Your task to perform on an android device: change notification settings in the gmail app Image 0: 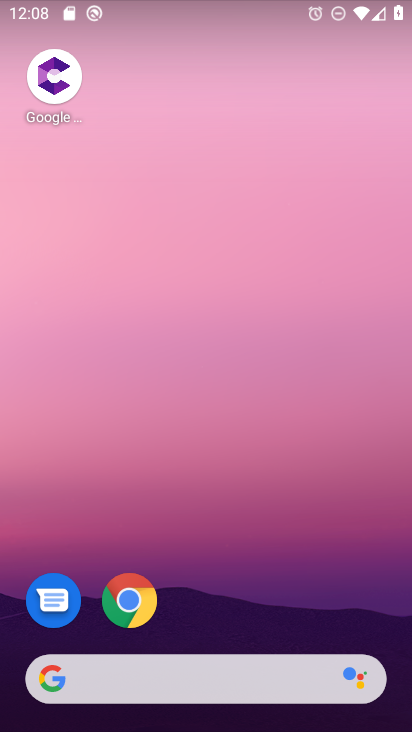
Step 0: drag from (248, 611) to (305, 1)
Your task to perform on an android device: change notification settings in the gmail app Image 1: 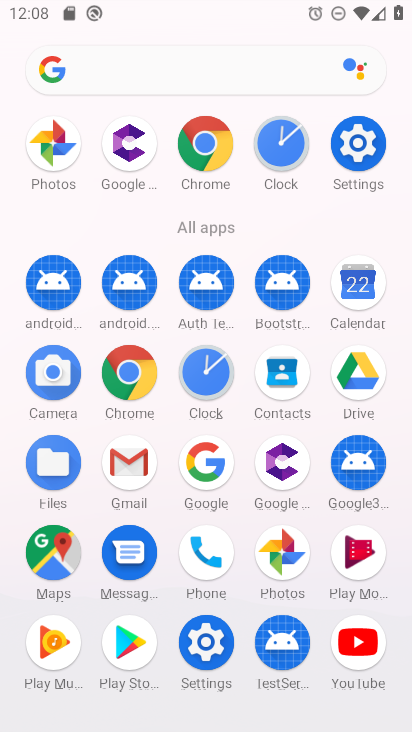
Step 1: click (126, 461)
Your task to perform on an android device: change notification settings in the gmail app Image 2: 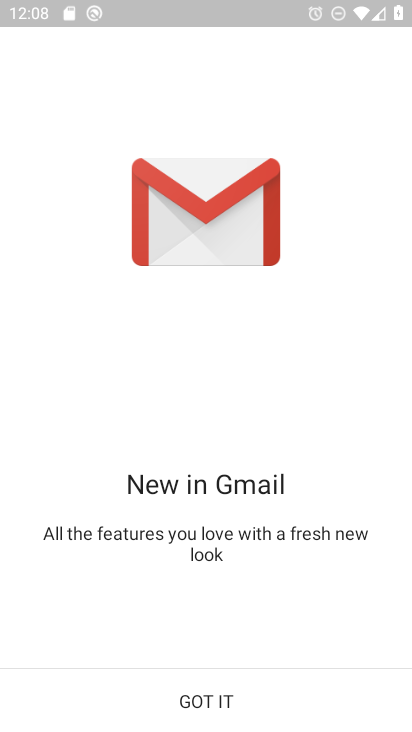
Step 2: click (215, 704)
Your task to perform on an android device: change notification settings in the gmail app Image 3: 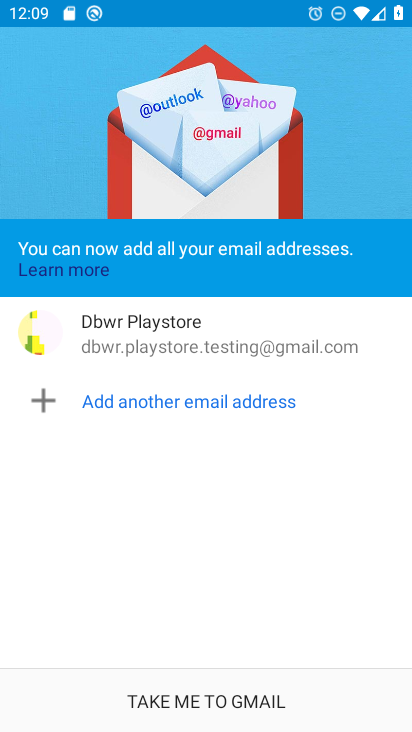
Step 3: click (218, 701)
Your task to perform on an android device: change notification settings in the gmail app Image 4: 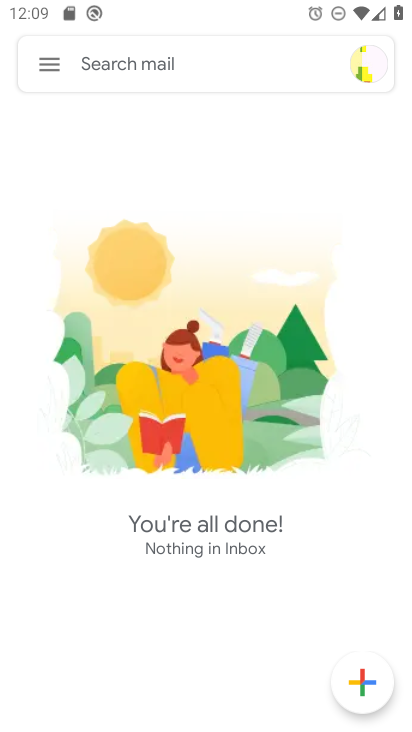
Step 4: click (52, 68)
Your task to perform on an android device: change notification settings in the gmail app Image 5: 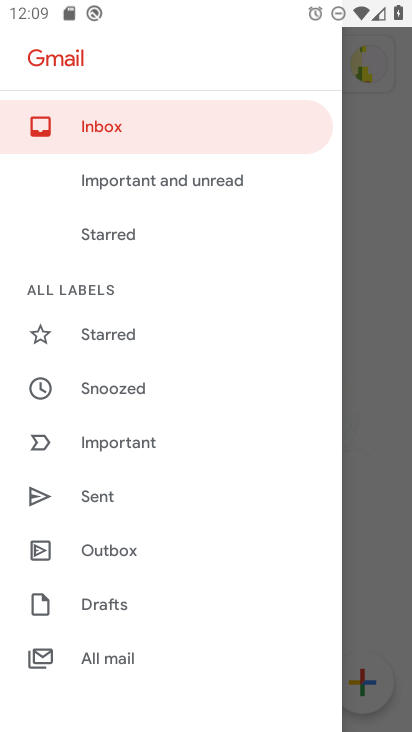
Step 5: drag from (161, 542) to (195, 405)
Your task to perform on an android device: change notification settings in the gmail app Image 6: 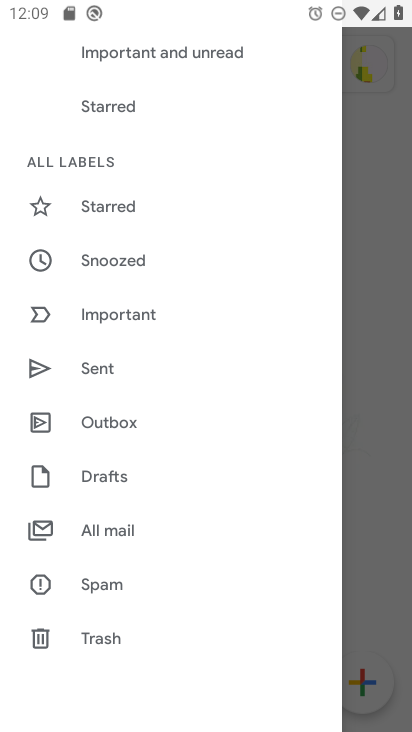
Step 6: drag from (175, 570) to (214, 491)
Your task to perform on an android device: change notification settings in the gmail app Image 7: 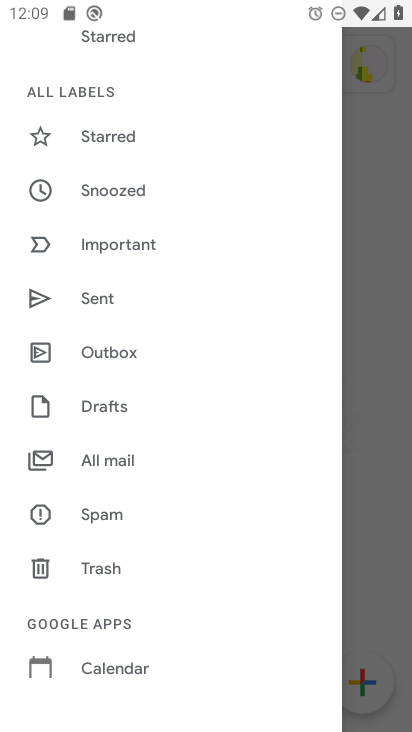
Step 7: drag from (175, 565) to (234, 455)
Your task to perform on an android device: change notification settings in the gmail app Image 8: 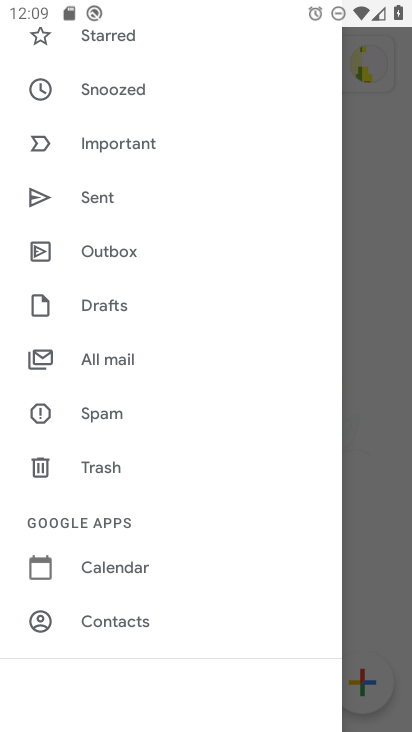
Step 8: drag from (180, 531) to (257, 431)
Your task to perform on an android device: change notification settings in the gmail app Image 9: 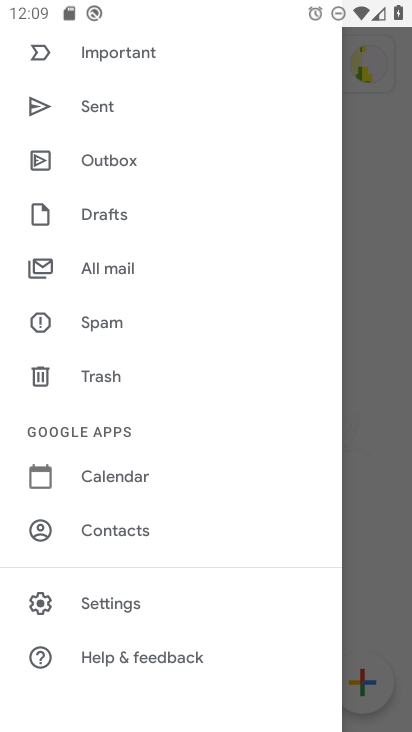
Step 9: click (129, 599)
Your task to perform on an android device: change notification settings in the gmail app Image 10: 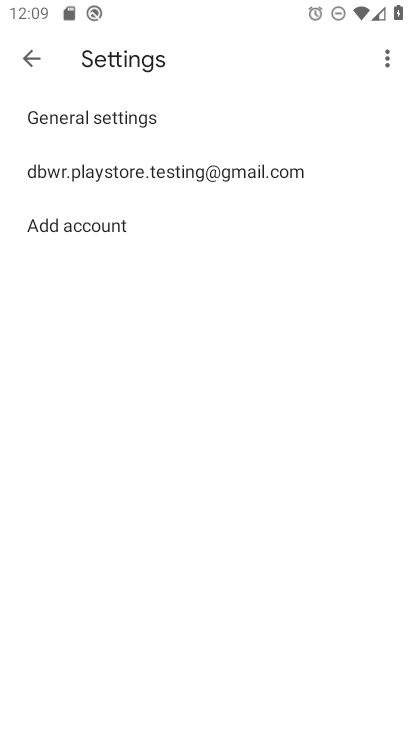
Step 10: click (259, 171)
Your task to perform on an android device: change notification settings in the gmail app Image 11: 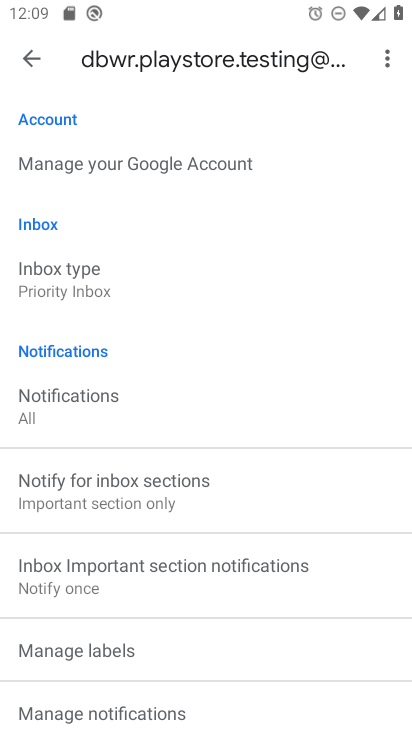
Step 11: click (120, 717)
Your task to perform on an android device: change notification settings in the gmail app Image 12: 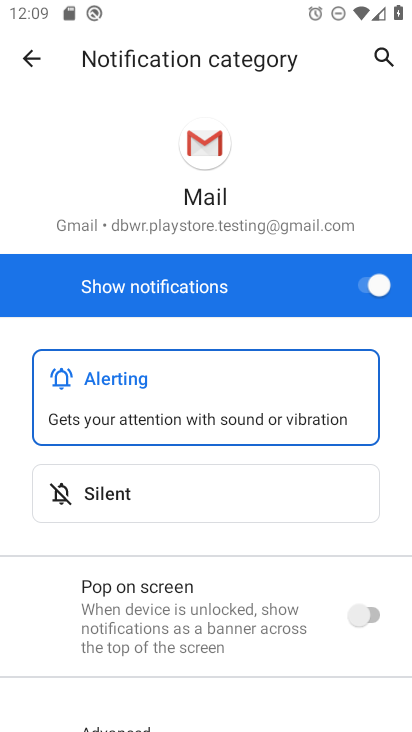
Step 12: click (370, 283)
Your task to perform on an android device: change notification settings in the gmail app Image 13: 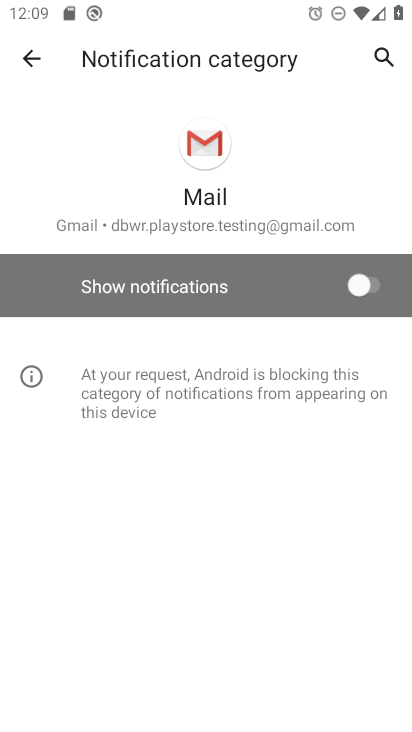
Step 13: task complete